Your task to perform on an android device: delete a single message in the gmail app Image 0: 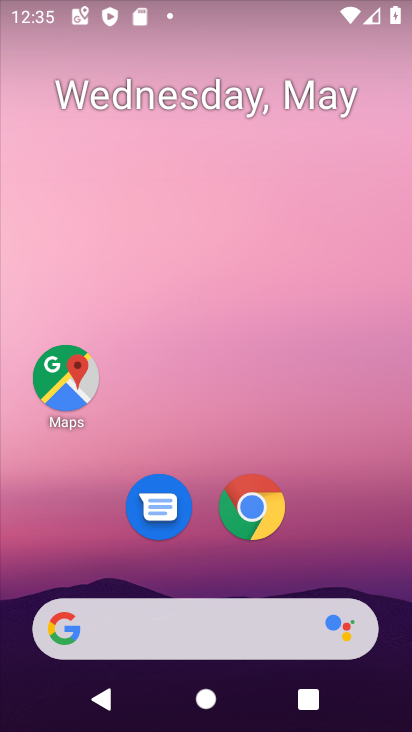
Step 0: drag from (329, 518) to (344, 217)
Your task to perform on an android device: delete a single message in the gmail app Image 1: 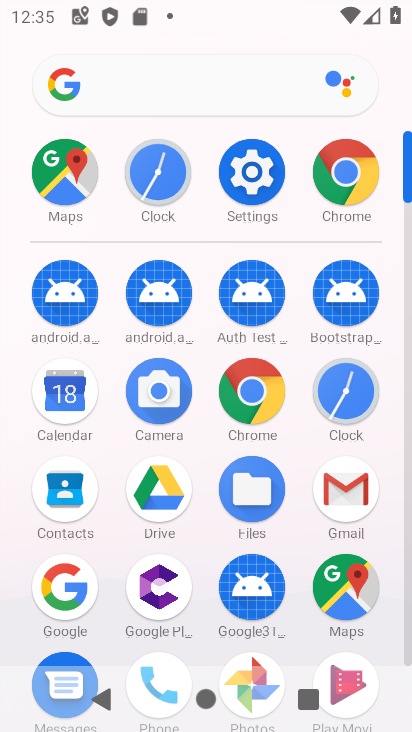
Step 1: click (345, 481)
Your task to perform on an android device: delete a single message in the gmail app Image 2: 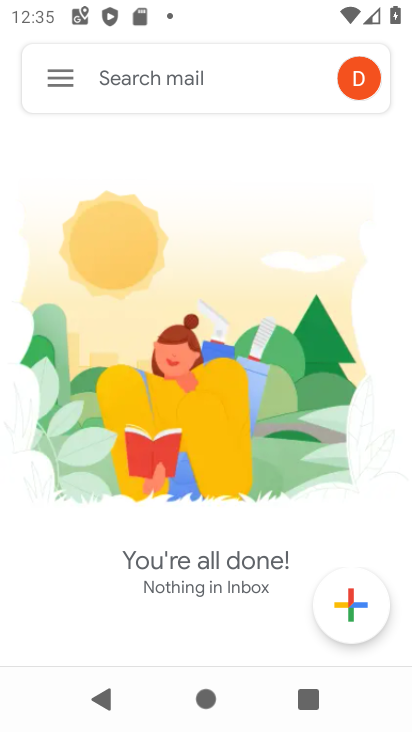
Step 2: click (58, 83)
Your task to perform on an android device: delete a single message in the gmail app Image 3: 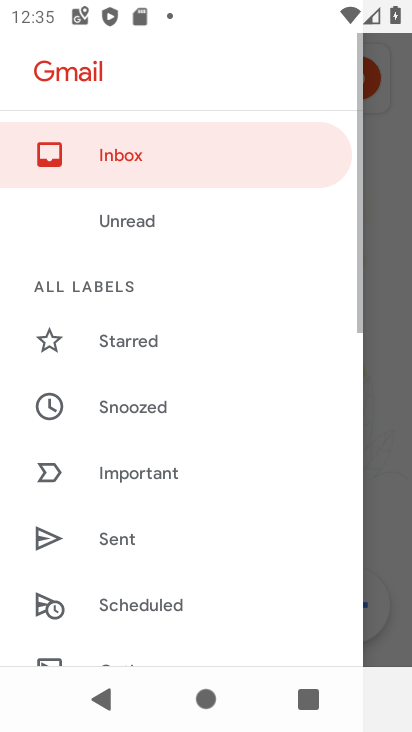
Step 3: drag from (176, 580) to (202, 346)
Your task to perform on an android device: delete a single message in the gmail app Image 4: 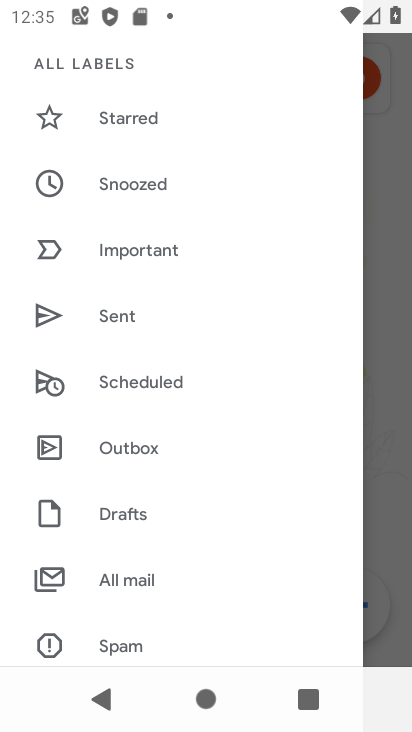
Step 4: click (137, 568)
Your task to perform on an android device: delete a single message in the gmail app Image 5: 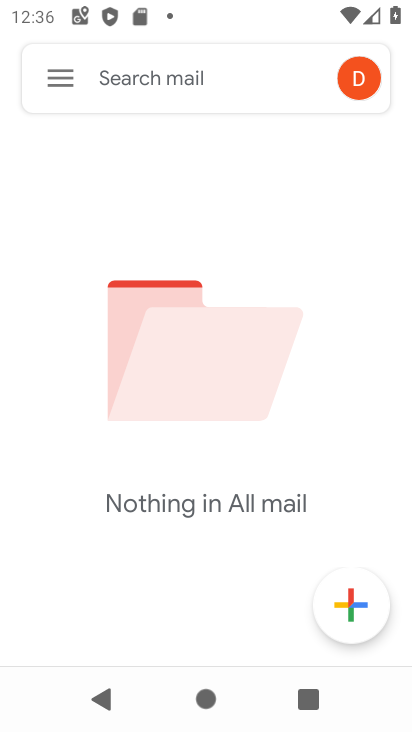
Step 5: task complete